Your task to perform on an android device: Do I have any events this weekend? Image 0: 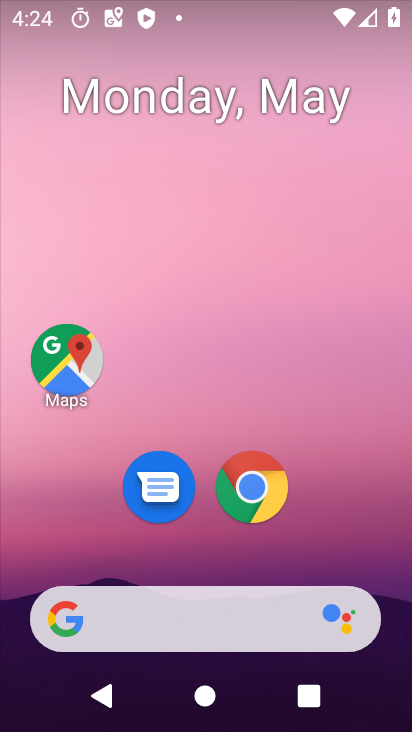
Step 0: drag from (356, 568) to (341, 15)
Your task to perform on an android device: Do I have any events this weekend? Image 1: 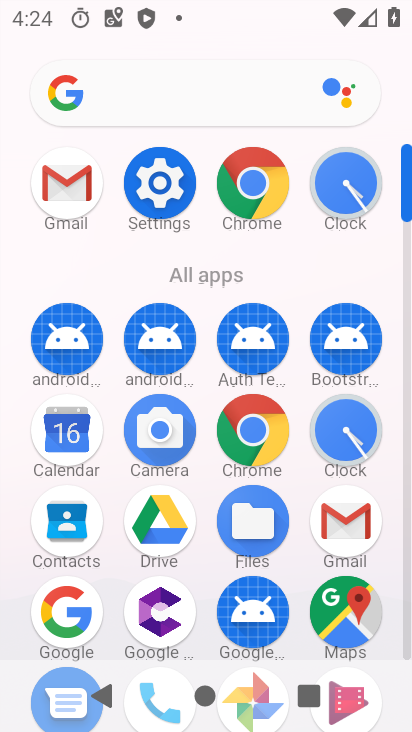
Step 1: click (50, 448)
Your task to perform on an android device: Do I have any events this weekend? Image 2: 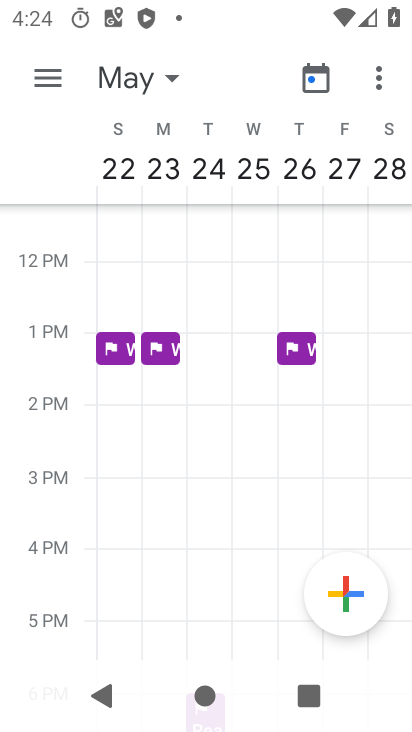
Step 2: click (306, 75)
Your task to perform on an android device: Do I have any events this weekend? Image 3: 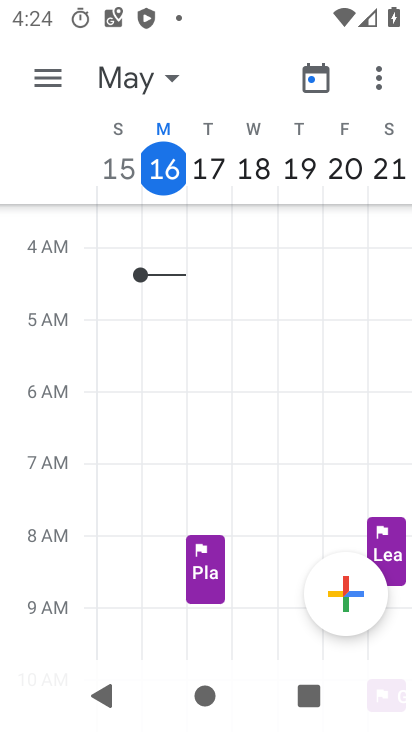
Step 3: click (173, 83)
Your task to perform on an android device: Do I have any events this weekend? Image 4: 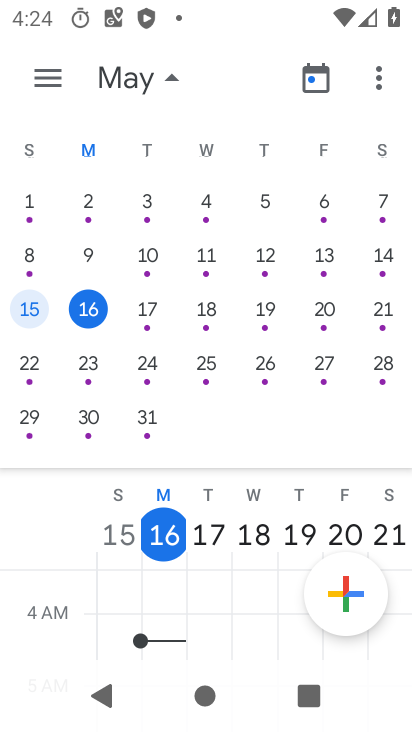
Step 4: click (46, 75)
Your task to perform on an android device: Do I have any events this weekend? Image 5: 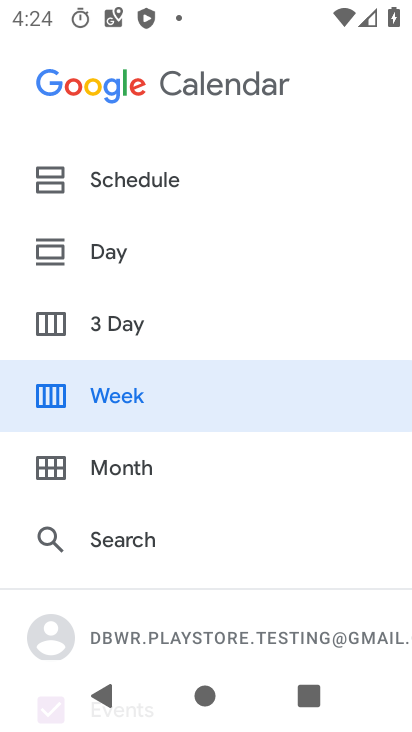
Step 5: click (130, 191)
Your task to perform on an android device: Do I have any events this weekend? Image 6: 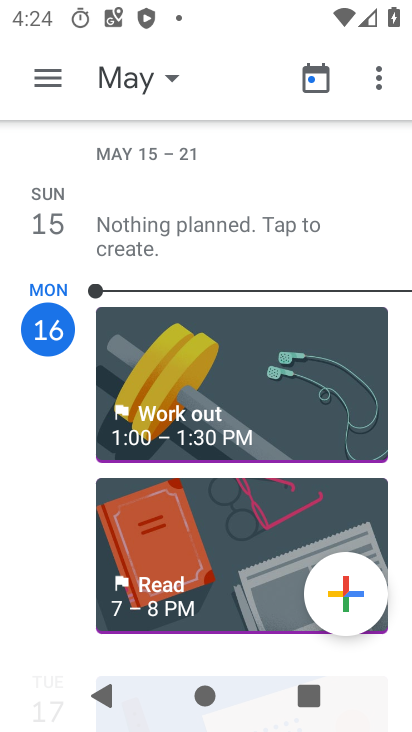
Step 6: drag from (132, 445) to (173, 0)
Your task to perform on an android device: Do I have any events this weekend? Image 7: 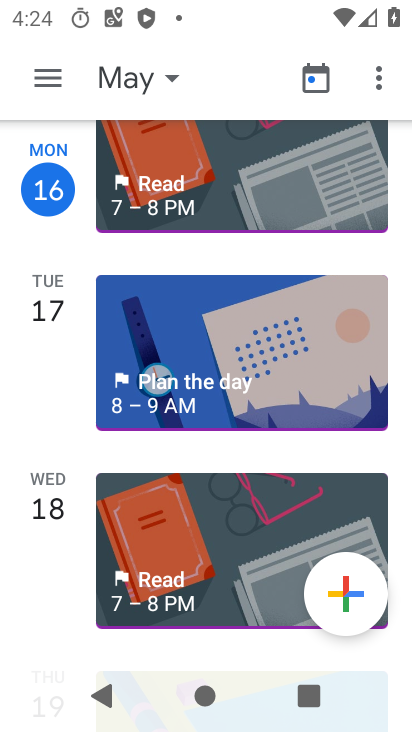
Step 7: drag from (142, 413) to (152, 15)
Your task to perform on an android device: Do I have any events this weekend? Image 8: 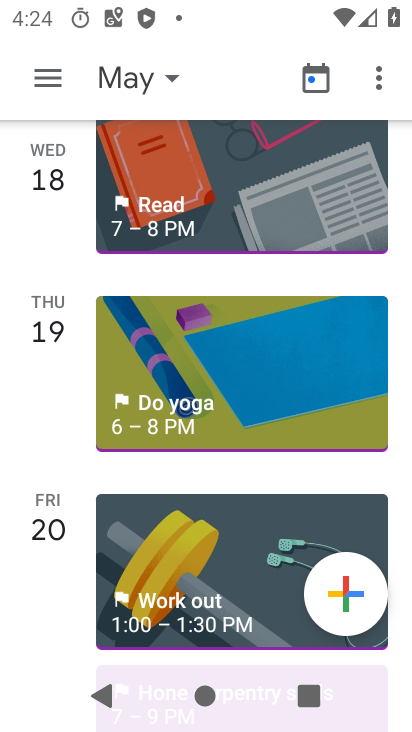
Step 8: drag from (111, 507) to (148, 0)
Your task to perform on an android device: Do I have any events this weekend? Image 9: 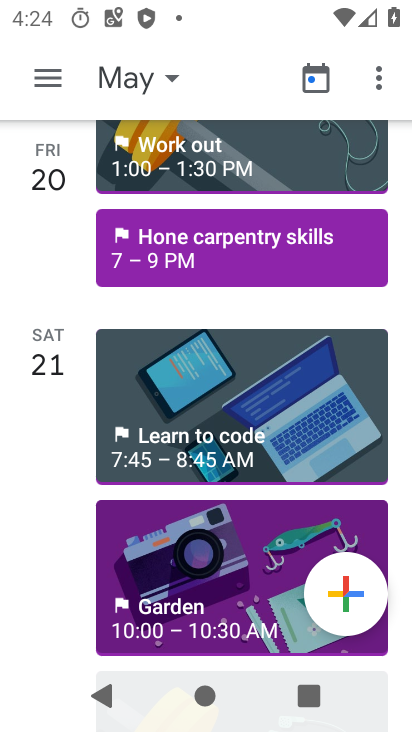
Step 9: drag from (143, 414) to (171, 92)
Your task to perform on an android device: Do I have any events this weekend? Image 10: 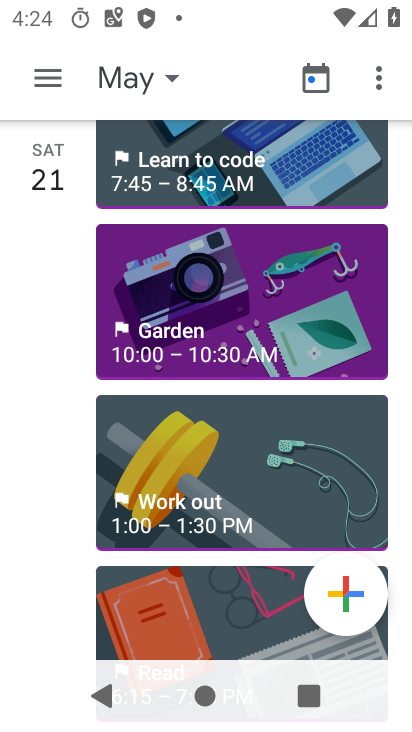
Step 10: click (174, 256)
Your task to perform on an android device: Do I have any events this weekend? Image 11: 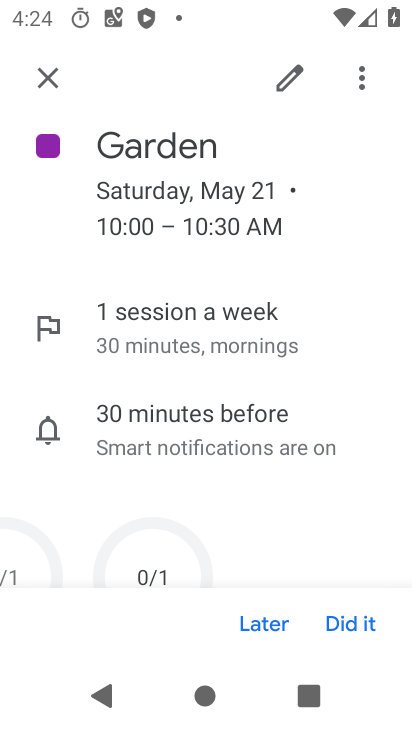
Step 11: task complete